Your task to perform on an android device: check out phone information Image 0: 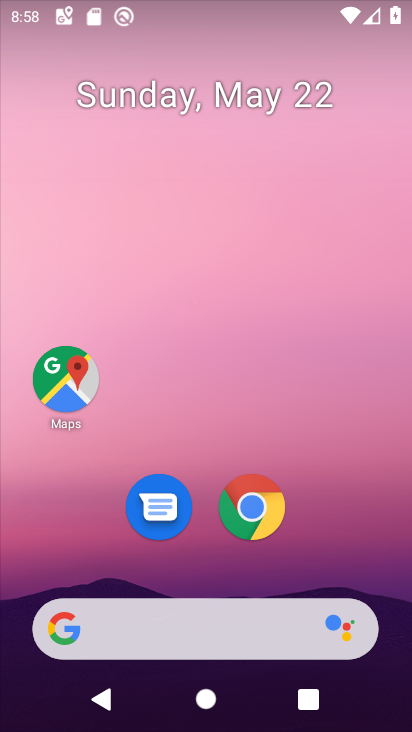
Step 0: drag from (182, 578) to (409, 254)
Your task to perform on an android device: check out phone information Image 1: 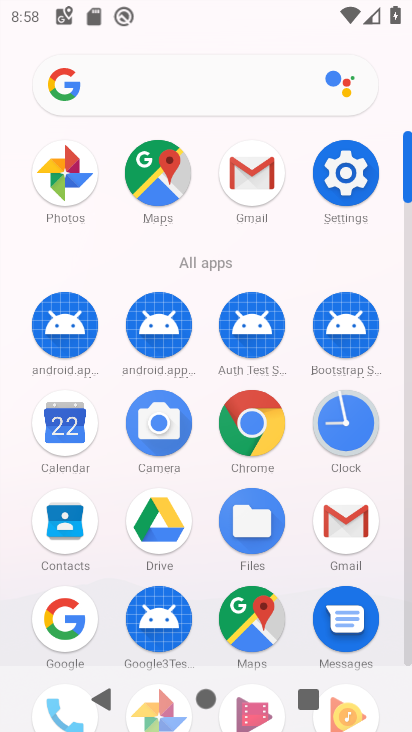
Step 1: click (345, 191)
Your task to perform on an android device: check out phone information Image 2: 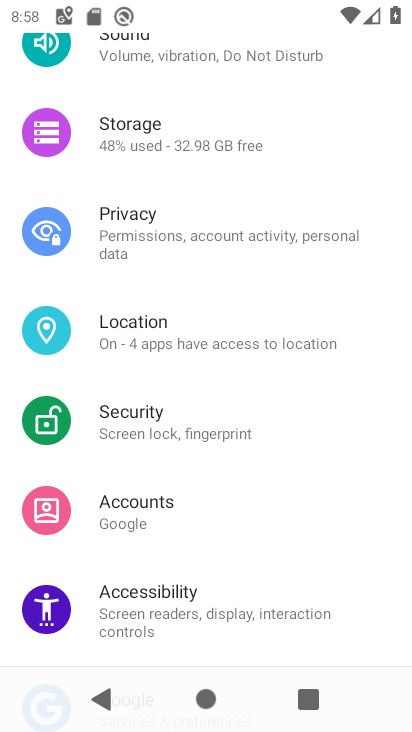
Step 2: drag from (129, 620) to (210, 152)
Your task to perform on an android device: check out phone information Image 3: 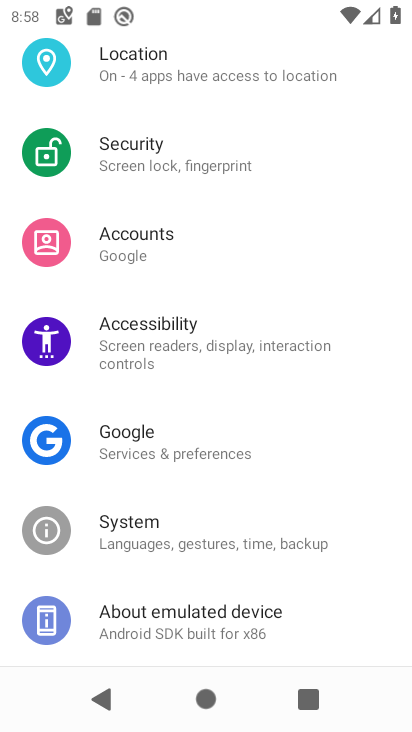
Step 3: drag from (119, 616) to (264, 171)
Your task to perform on an android device: check out phone information Image 4: 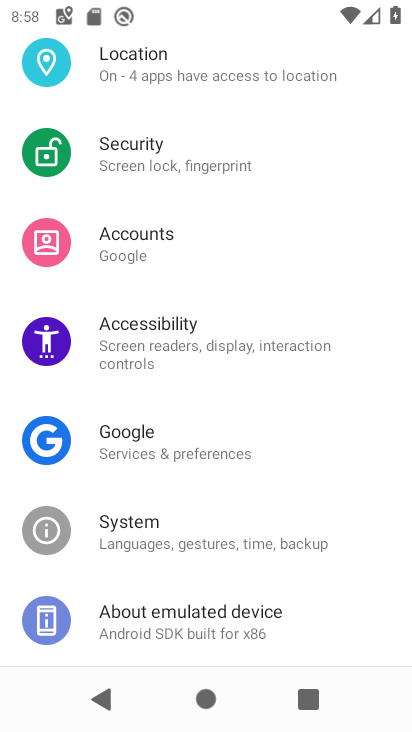
Step 4: click (160, 619)
Your task to perform on an android device: check out phone information Image 5: 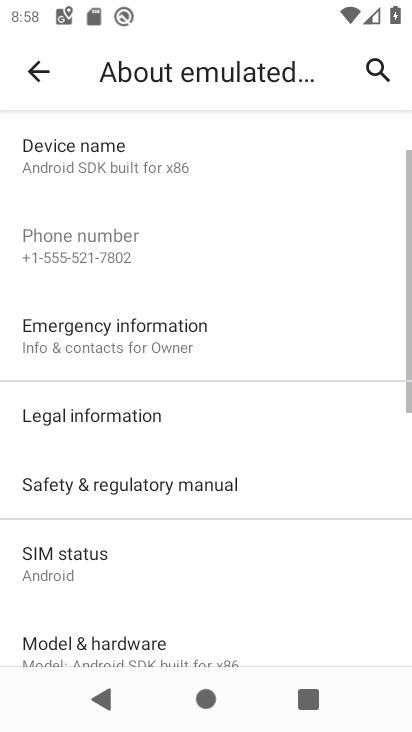
Step 5: task complete